Your task to perform on an android device: Add "macbook" to the cart on costco.com Image 0: 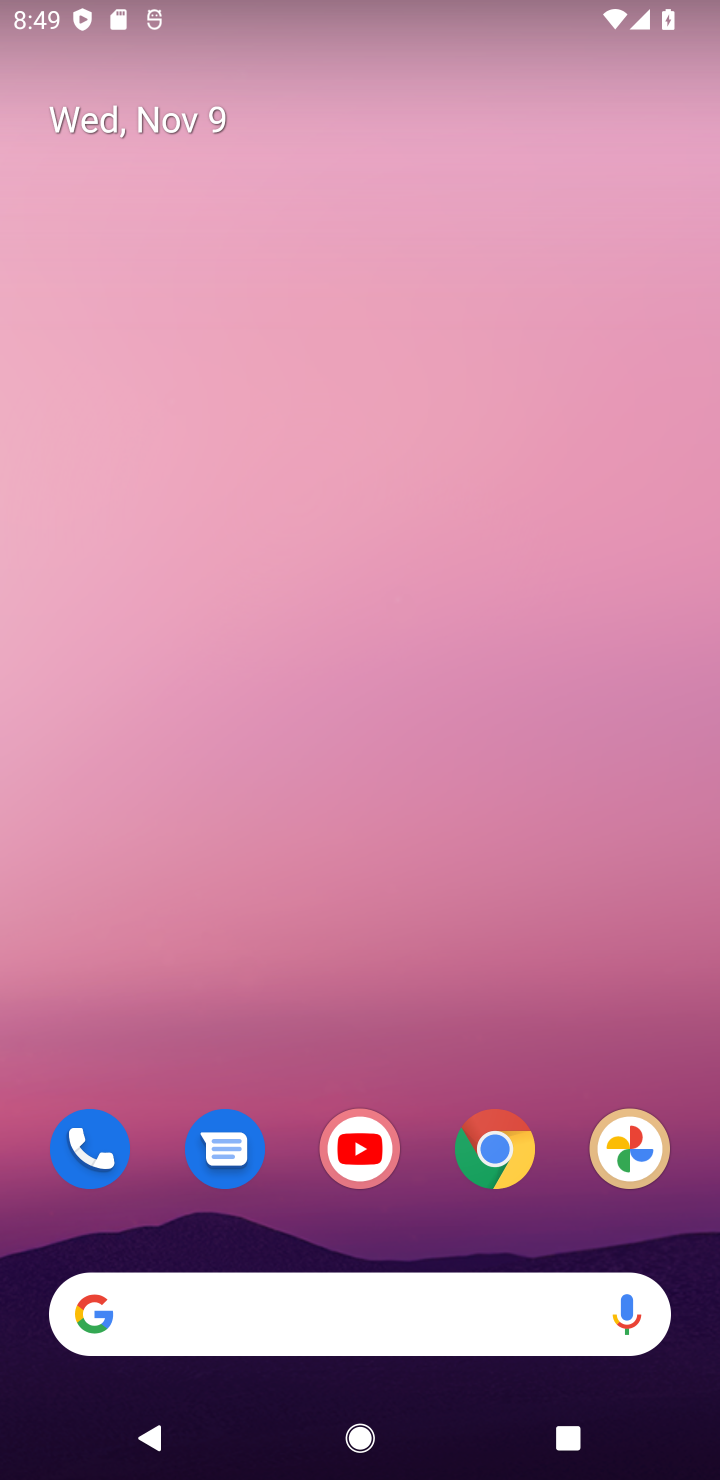
Step 0: click (485, 1130)
Your task to perform on an android device: Add "macbook" to the cart on costco.com Image 1: 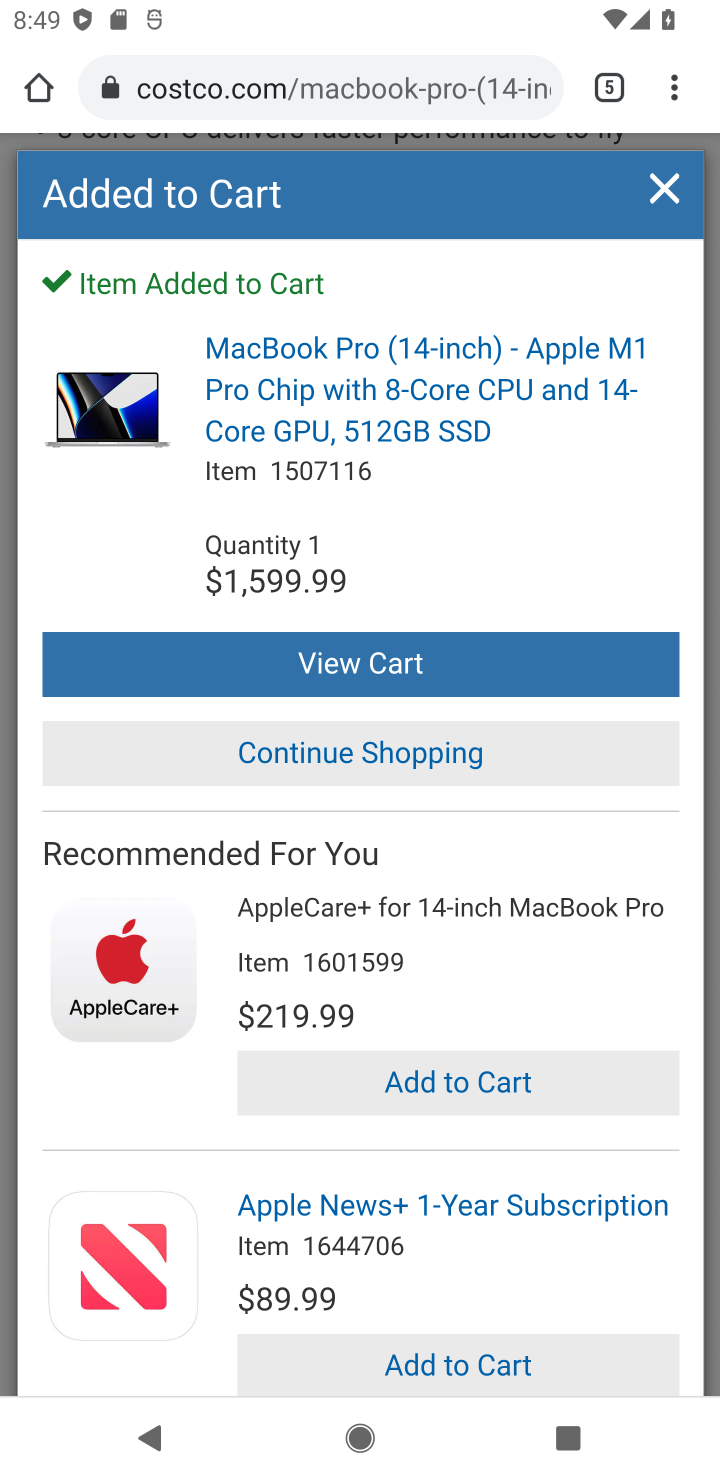
Step 1: click (655, 193)
Your task to perform on an android device: Add "macbook" to the cart on costco.com Image 2: 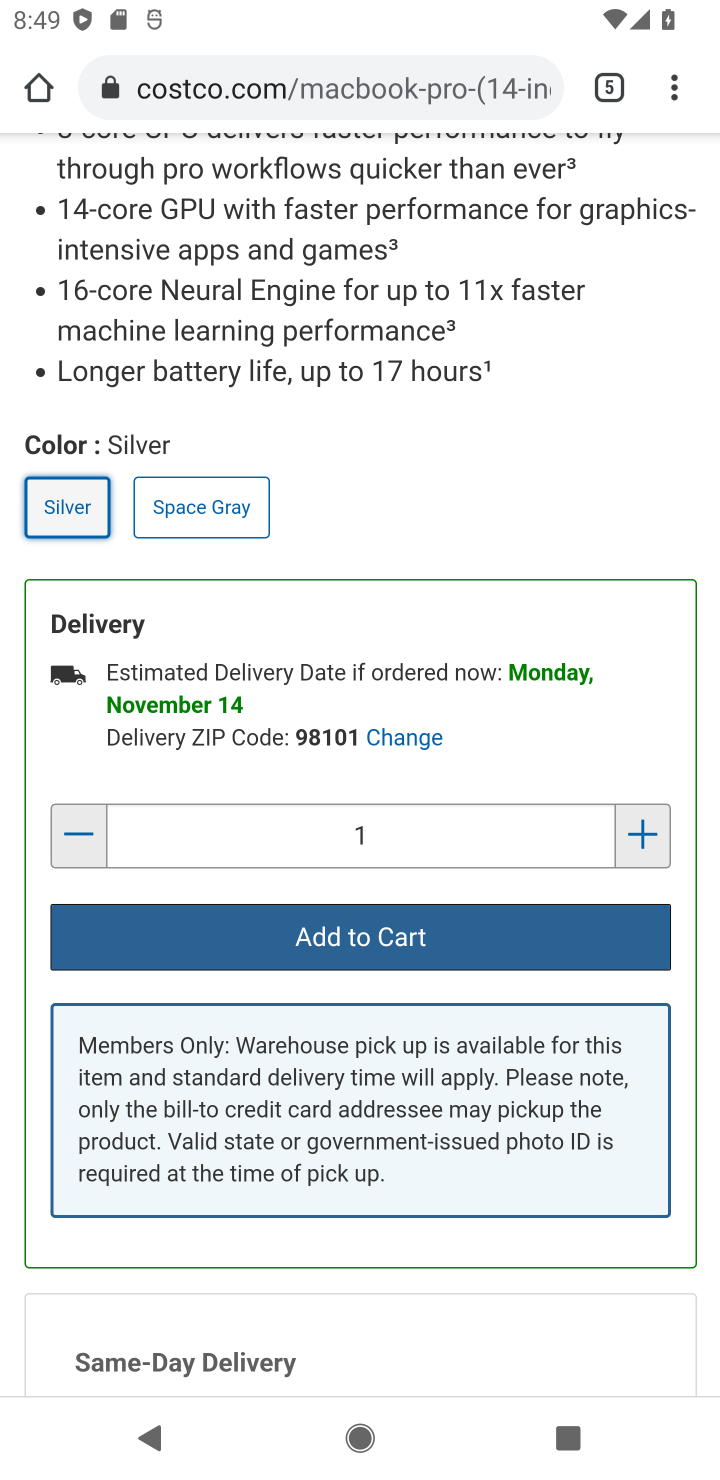
Step 2: drag from (481, 294) to (474, 1436)
Your task to perform on an android device: Add "macbook" to the cart on costco.com Image 3: 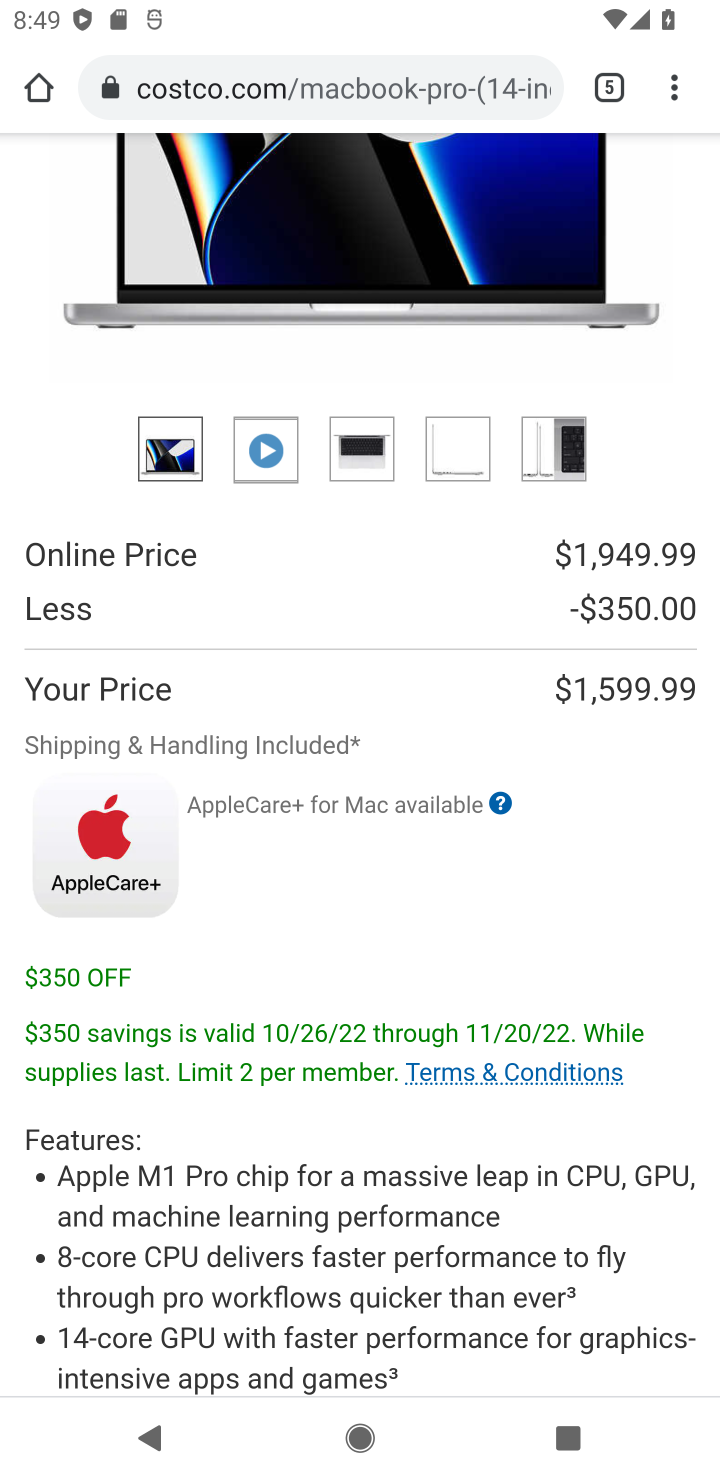
Step 3: drag from (680, 250) to (678, 1459)
Your task to perform on an android device: Add "macbook" to the cart on costco.com Image 4: 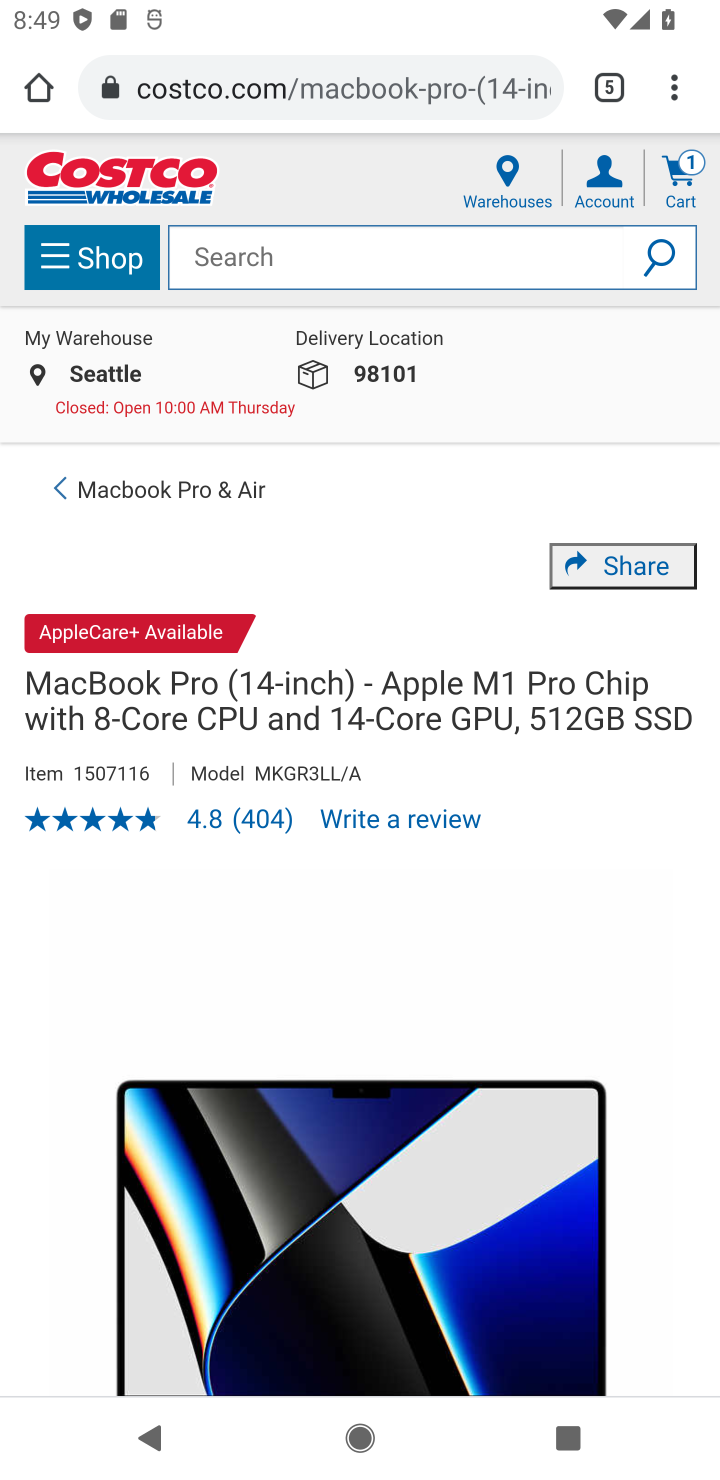
Step 4: click (267, 249)
Your task to perform on an android device: Add "macbook" to the cart on costco.com Image 5: 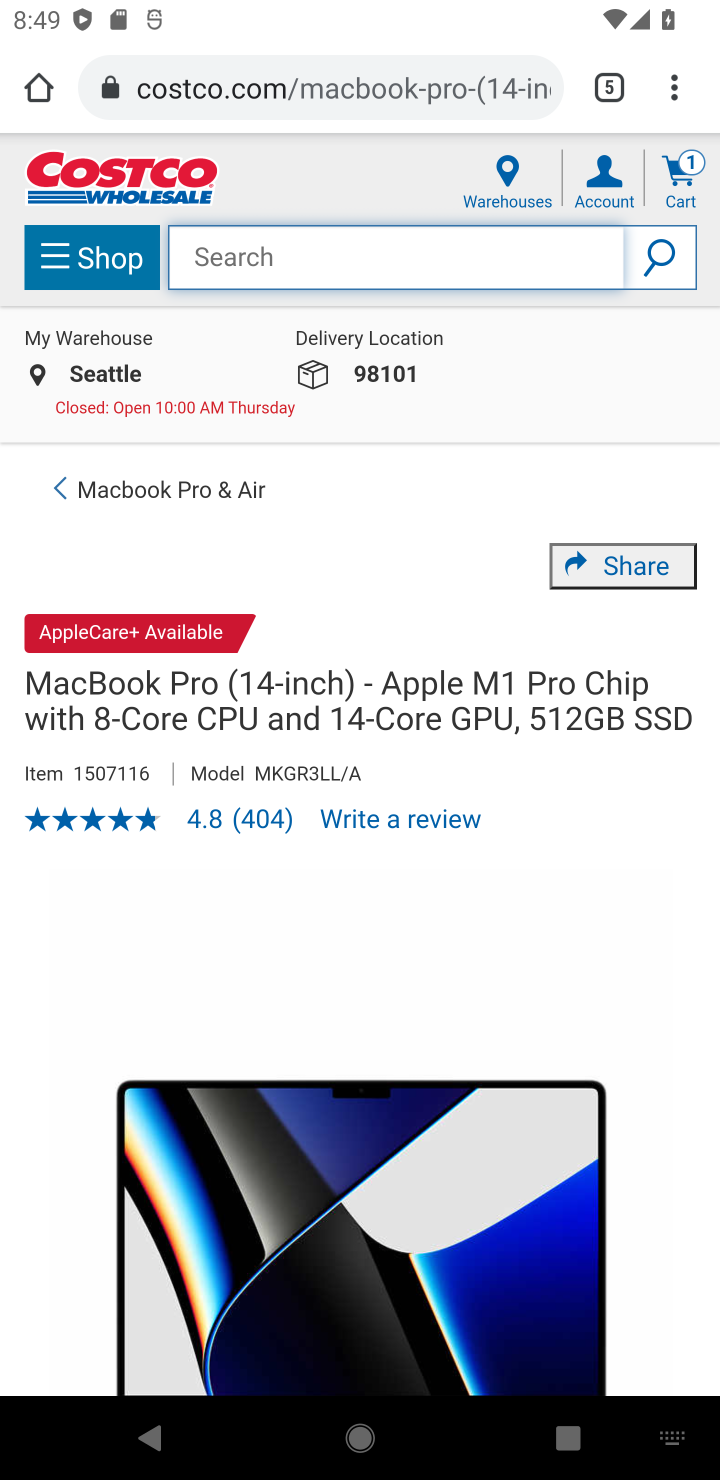
Step 5: type "macbook"
Your task to perform on an android device: Add "macbook" to the cart on costco.com Image 6: 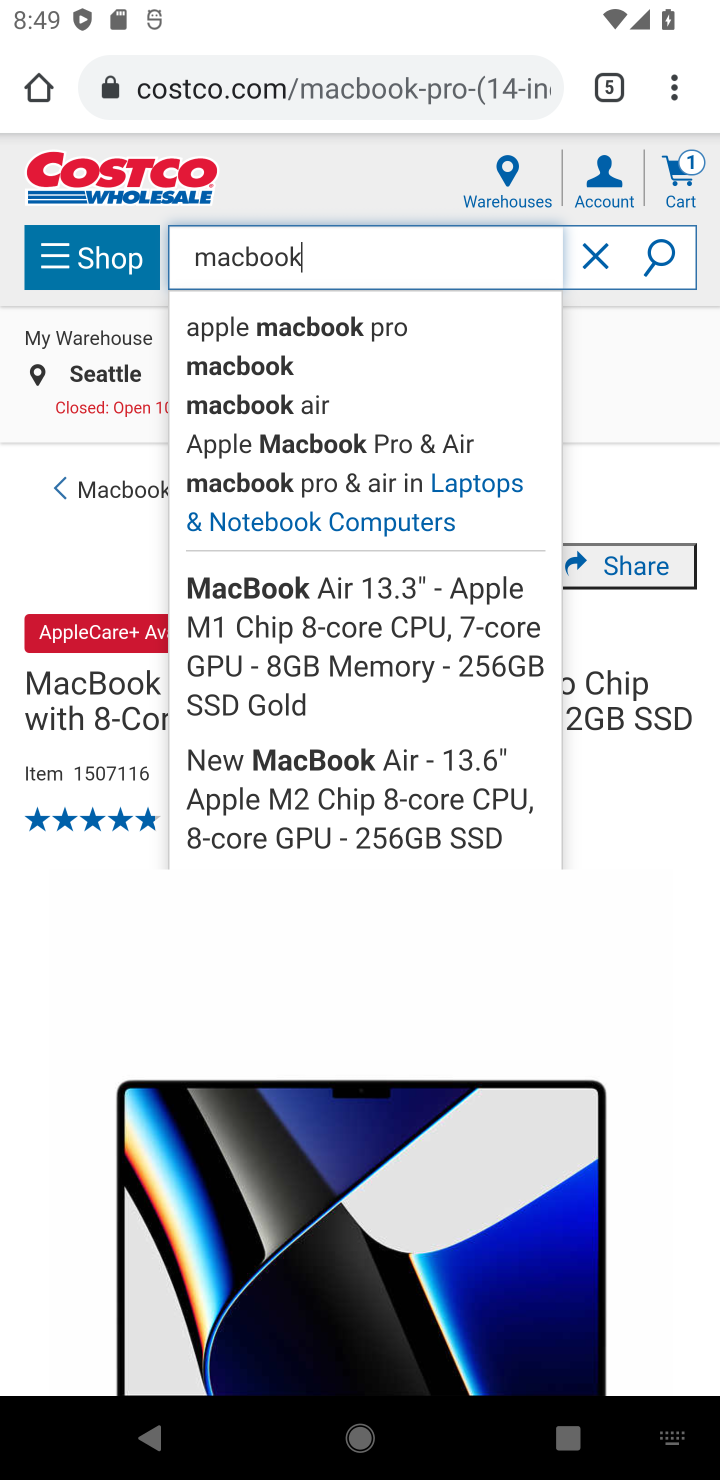
Step 6: click (664, 259)
Your task to perform on an android device: Add "macbook" to the cart on costco.com Image 7: 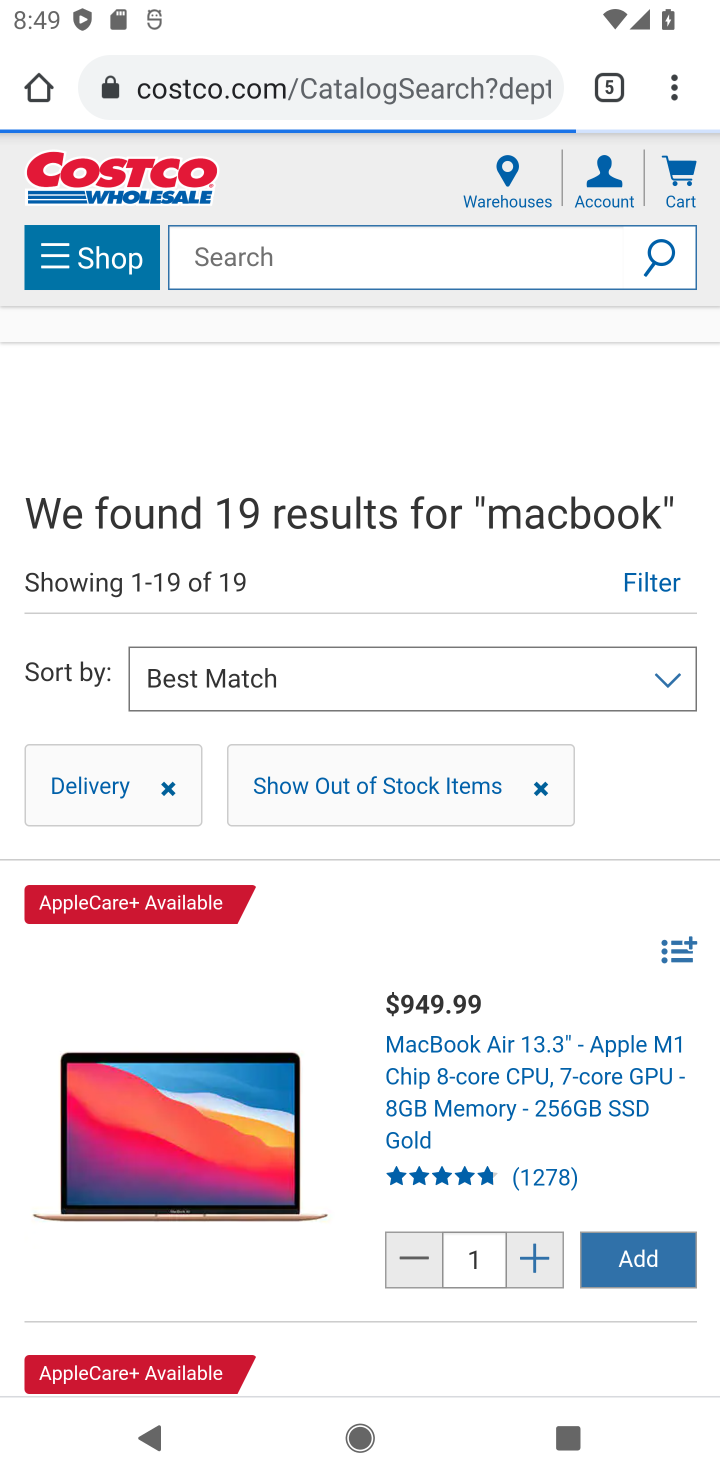
Step 7: click (641, 1256)
Your task to perform on an android device: Add "macbook" to the cart on costco.com Image 8: 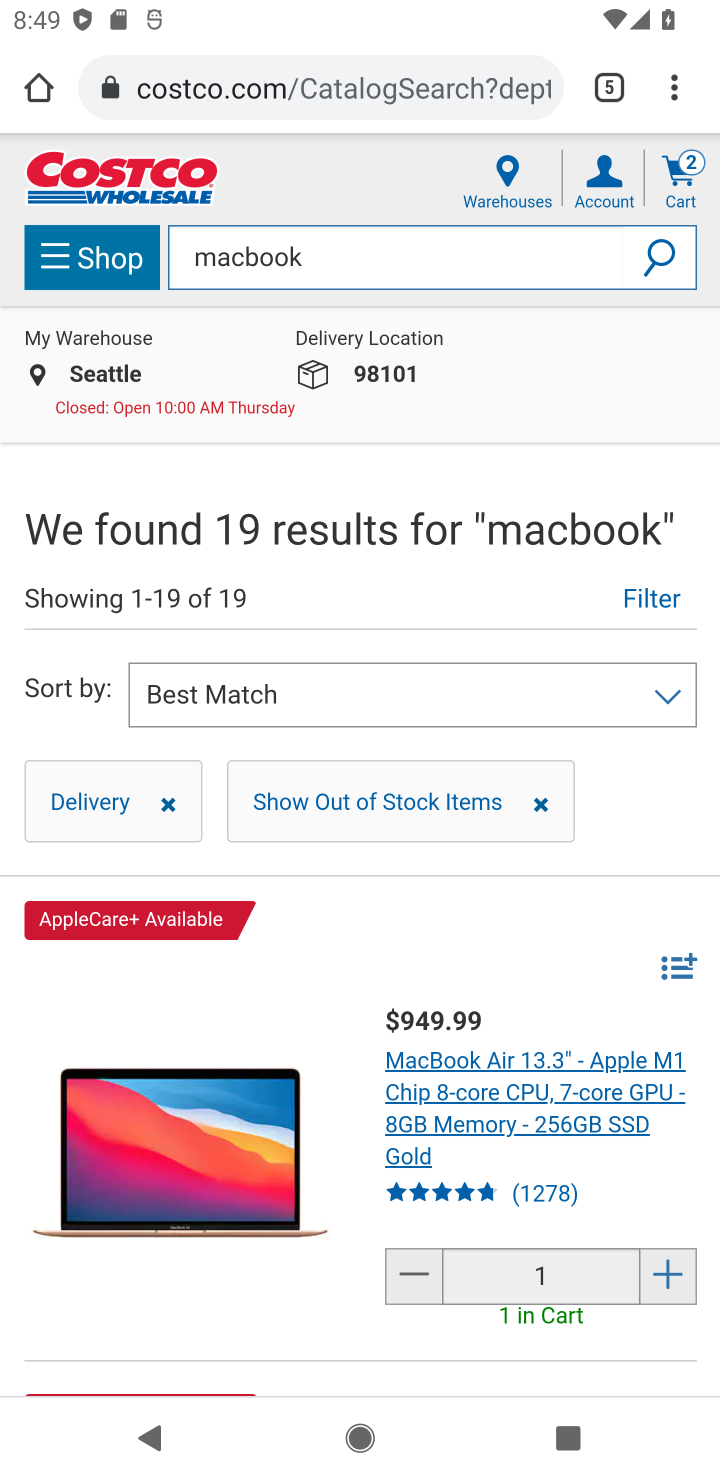
Step 8: task complete